Your task to perform on an android device: change notifications settings Image 0: 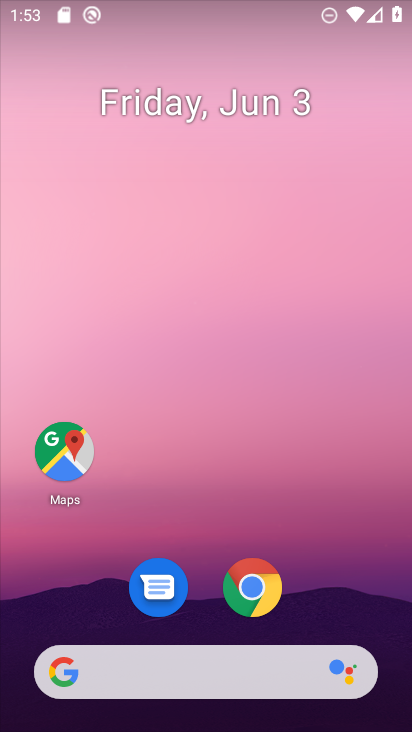
Step 0: drag from (331, 616) to (326, 17)
Your task to perform on an android device: change notifications settings Image 1: 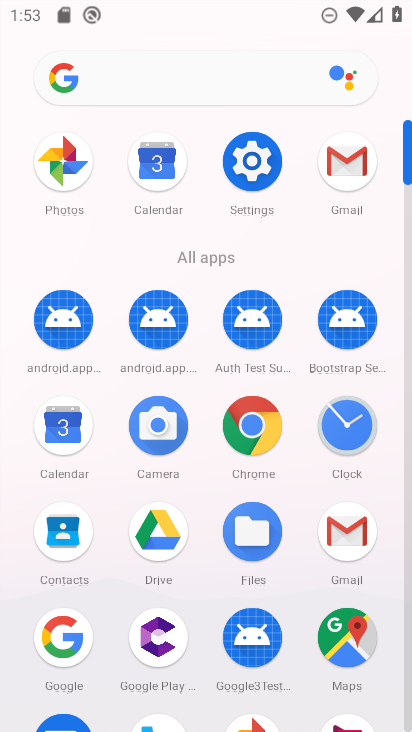
Step 1: click (259, 156)
Your task to perform on an android device: change notifications settings Image 2: 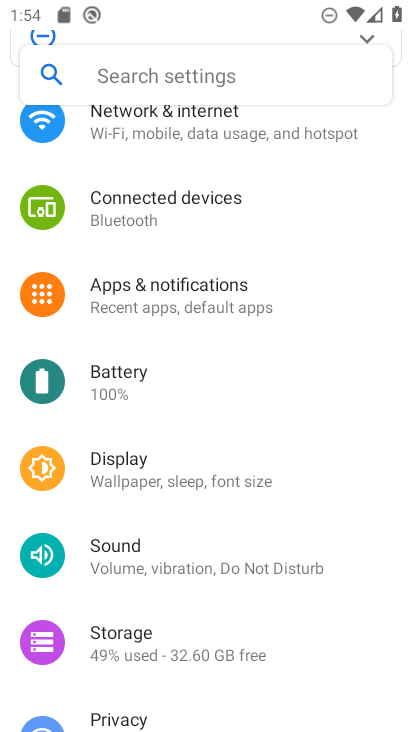
Step 2: click (173, 306)
Your task to perform on an android device: change notifications settings Image 3: 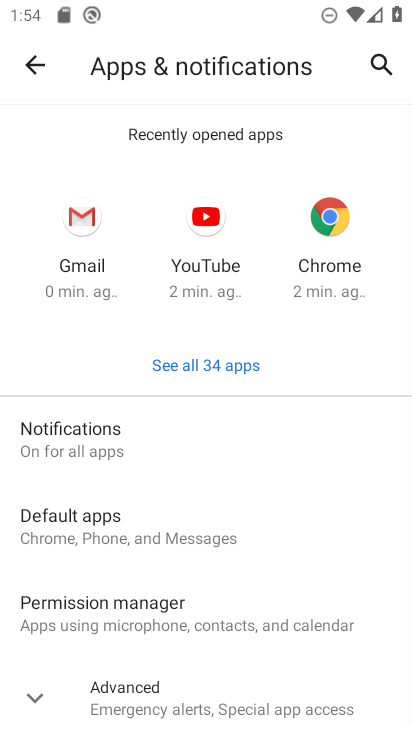
Step 3: click (102, 445)
Your task to perform on an android device: change notifications settings Image 4: 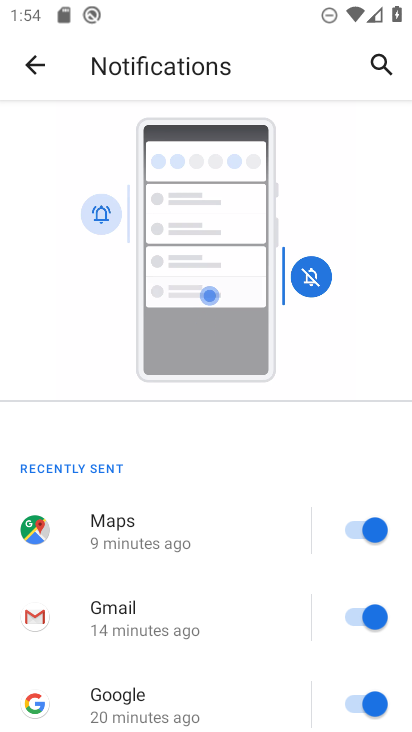
Step 4: drag from (196, 664) to (242, 199)
Your task to perform on an android device: change notifications settings Image 5: 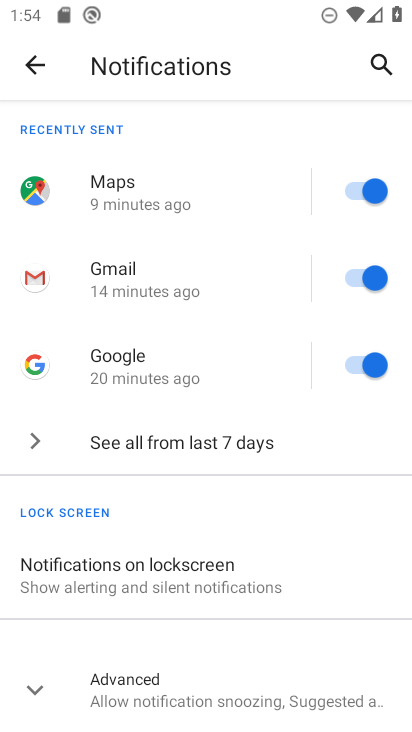
Step 5: click (158, 451)
Your task to perform on an android device: change notifications settings Image 6: 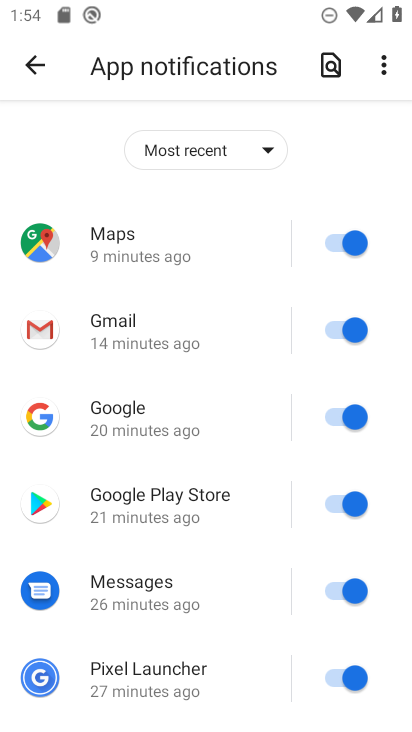
Step 6: click (359, 236)
Your task to perform on an android device: change notifications settings Image 7: 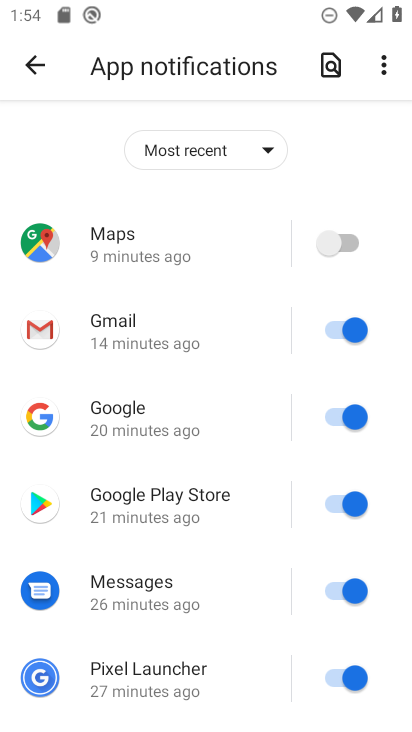
Step 7: click (341, 324)
Your task to perform on an android device: change notifications settings Image 8: 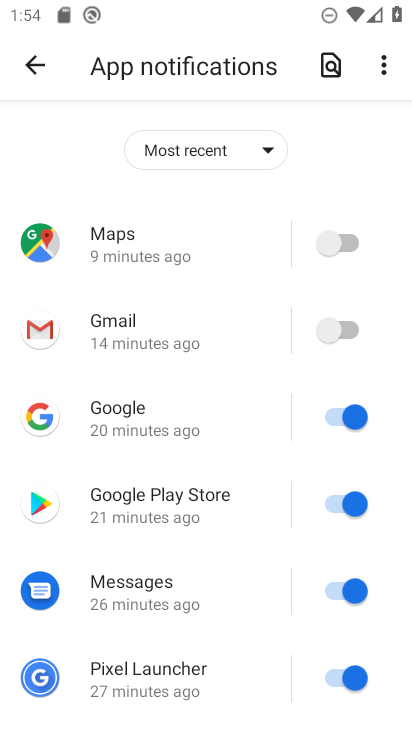
Step 8: click (340, 425)
Your task to perform on an android device: change notifications settings Image 9: 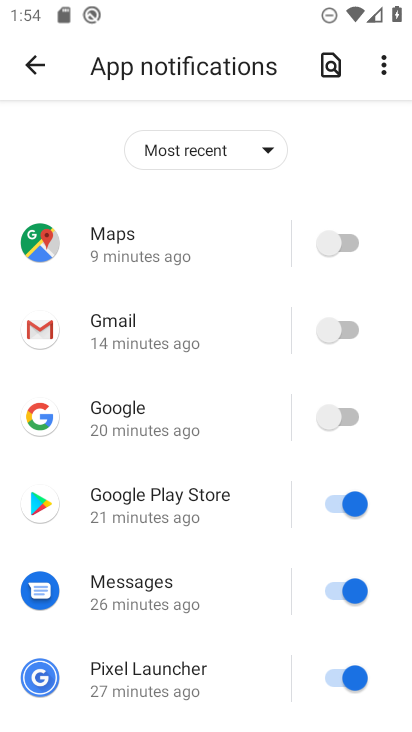
Step 9: click (331, 498)
Your task to perform on an android device: change notifications settings Image 10: 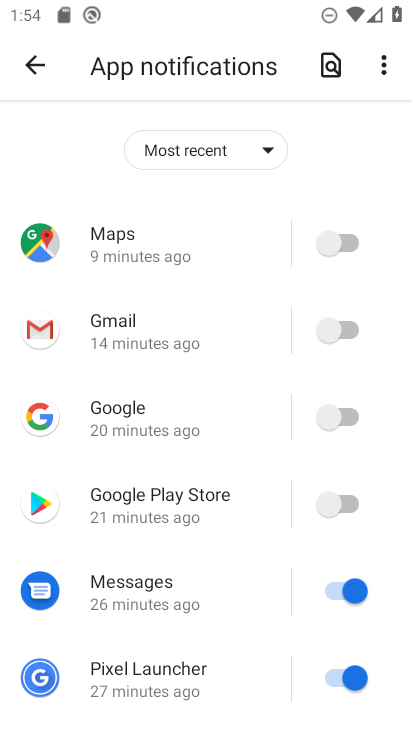
Step 10: click (319, 582)
Your task to perform on an android device: change notifications settings Image 11: 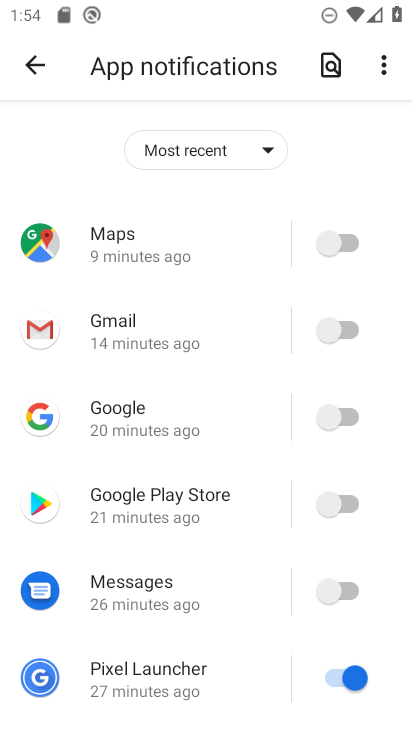
Step 11: click (340, 686)
Your task to perform on an android device: change notifications settings Image 12: 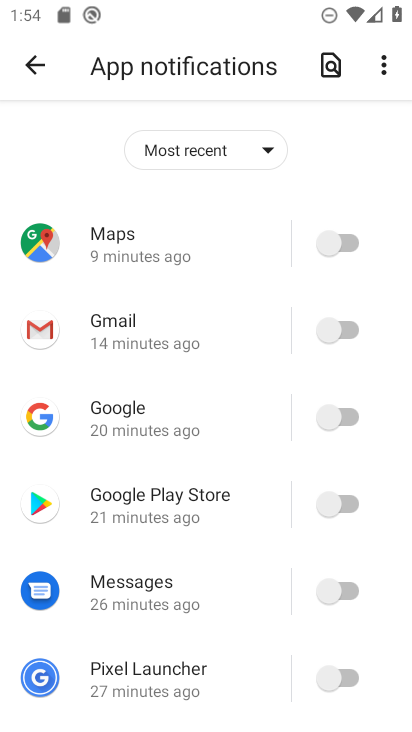
Step 12: drag from (113, 629) to (153, 81)
Your task to perform on an android device: change notifications settings Image 13: 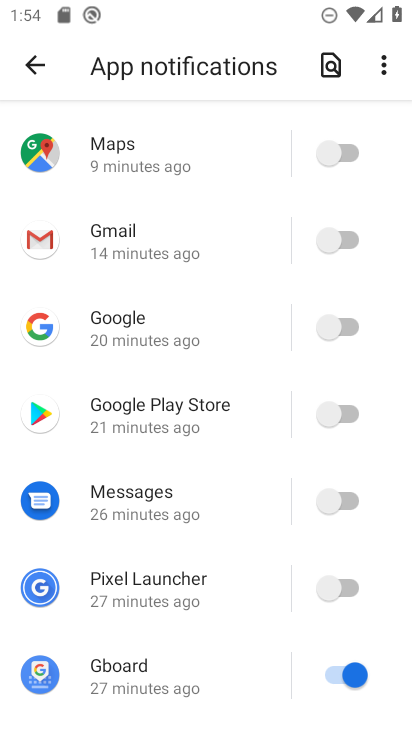
Step 13: click (327, 675)
Your task to perform on an android device: change notifications settings Image 14: 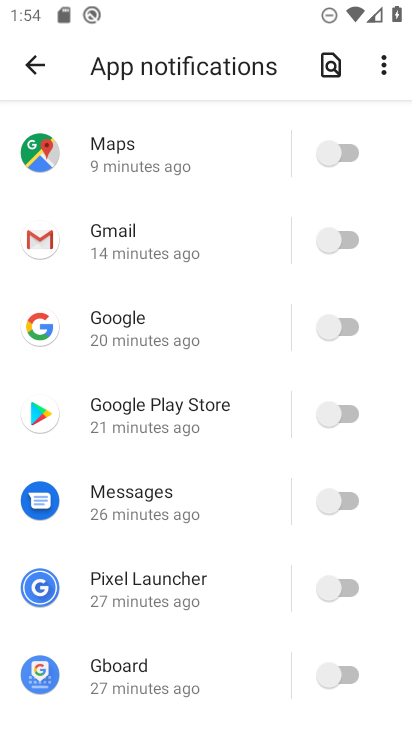
Step 14: click (35, 73)
Your task to perform on an android device: change notifications settings Image 15: 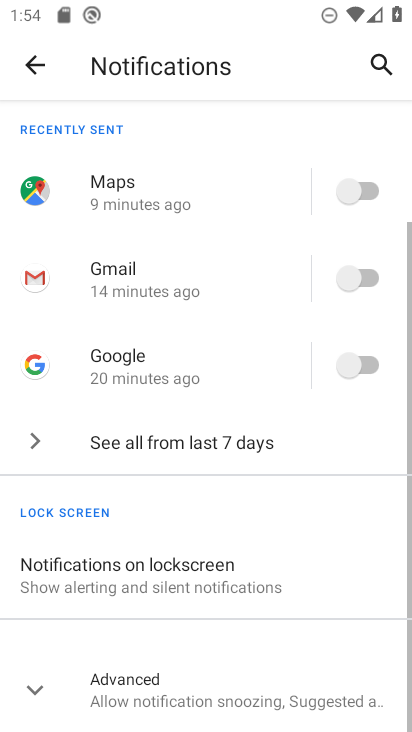
Step 15: click (113, 582)
Your task to perform on an android device: change notifications settings Image 16: 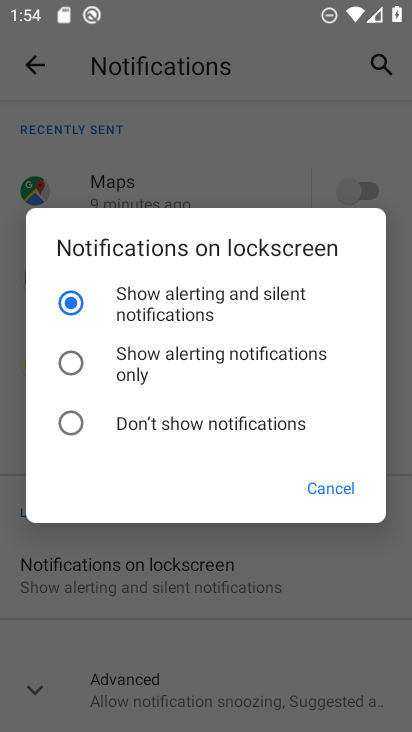
Step 16: click (134, 363)
Your task to perform on an android device: change notifications settings Image 17: 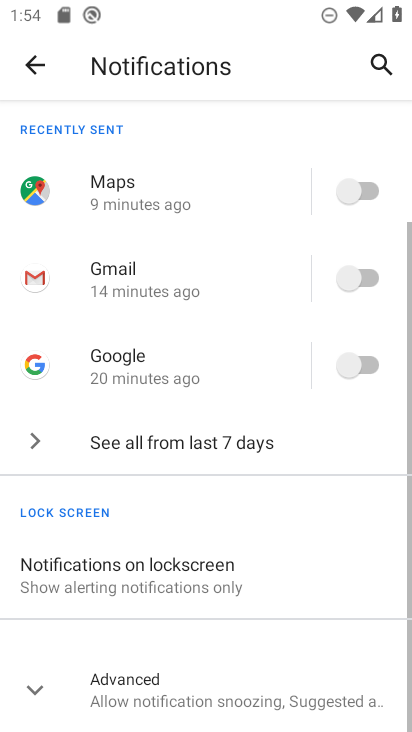
Step 17: drag from (107, 552) to (185, 71)
Your task to perform on an android device: change notifications settings Image 18: 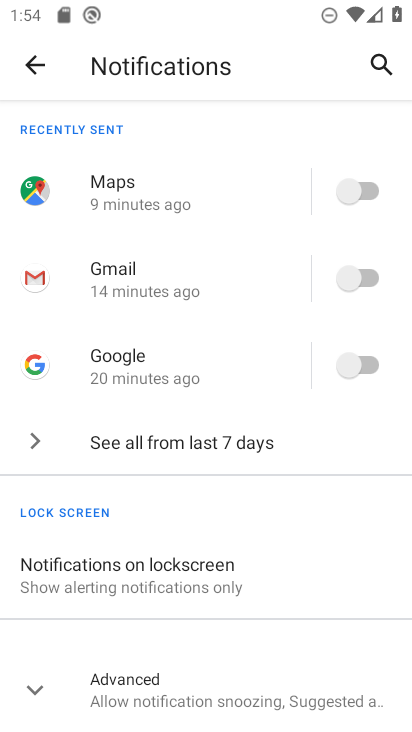
Step 18: click (113, 679)
Your task to perform on an android device: change notifications settings Image 19: 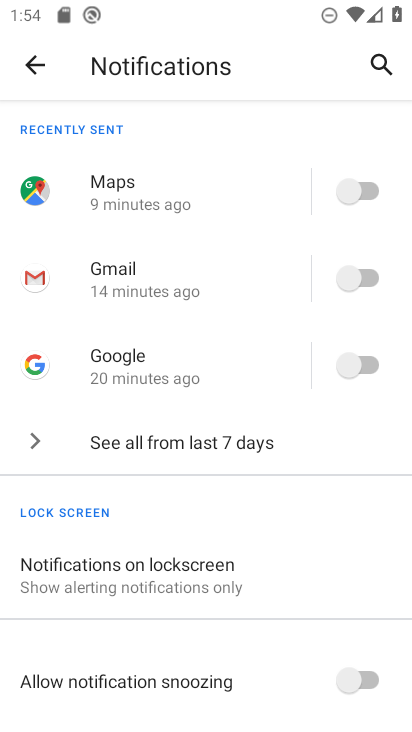
Step 19: drag from (300, 684) to (381, 130)
Your task to perform on an android device: change notifications settings Image 20: 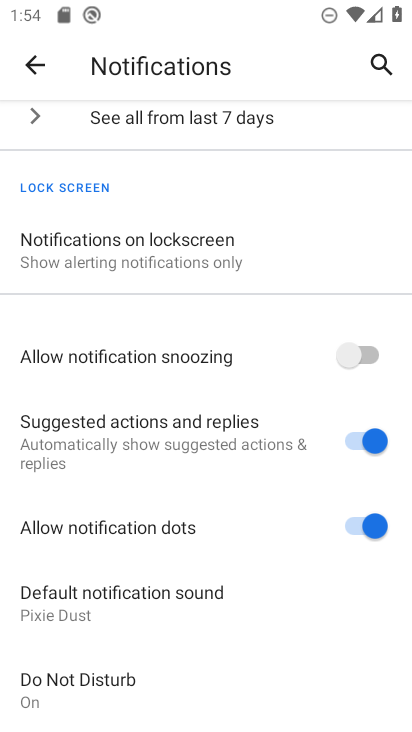
Step 20: click (350, 353)
Your task to perform on an android device: change notifications settings Image 21: 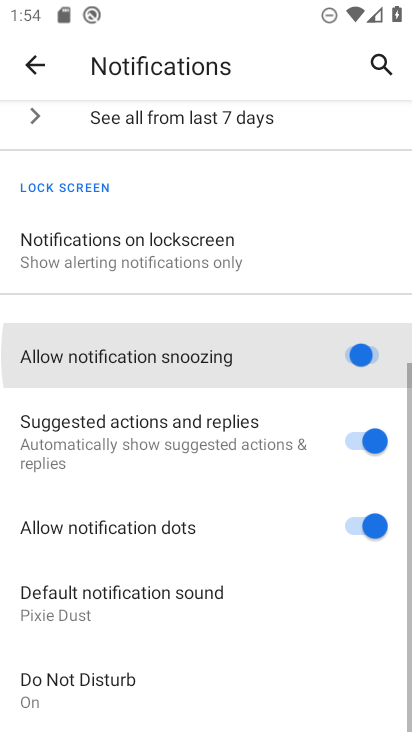
Step 21: click (377, 443)
Your task to perform on an android device: change notifications settings Image 22: 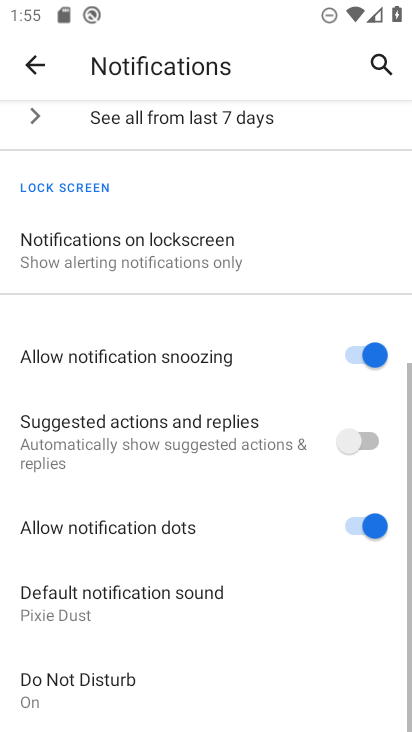
Step 22: click (361, 524)
Your task to perform on an android device: change notifications settings Image 23: 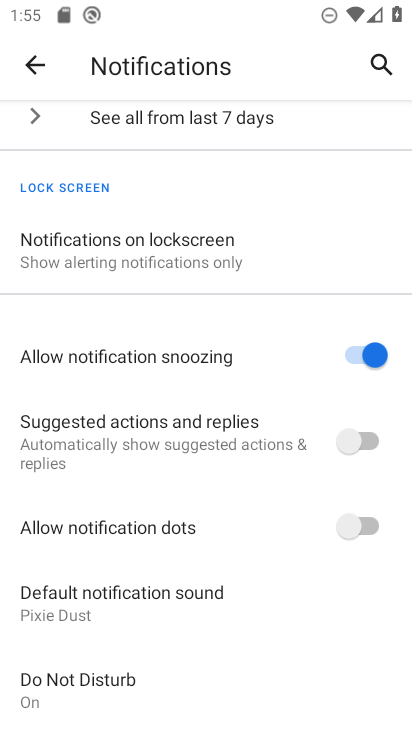
Step 23: task complete